Your task to perform on an android device: manage bookmarks in the chrome app Image 0: 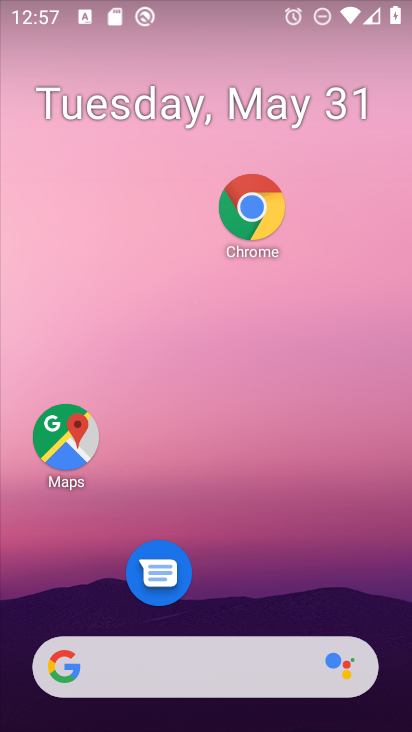
Step 0: drag from (152, 603) to (232, 151)
Your task to perform on an android device: manage bookmarks in the chrome app Image 1: 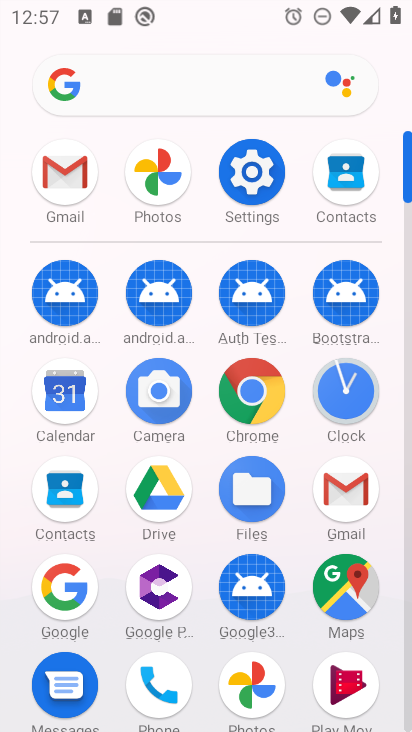
Step 1: click (255, 390)
Your task to perform on an android device: manage bookmarks in the chrome app Image 2: 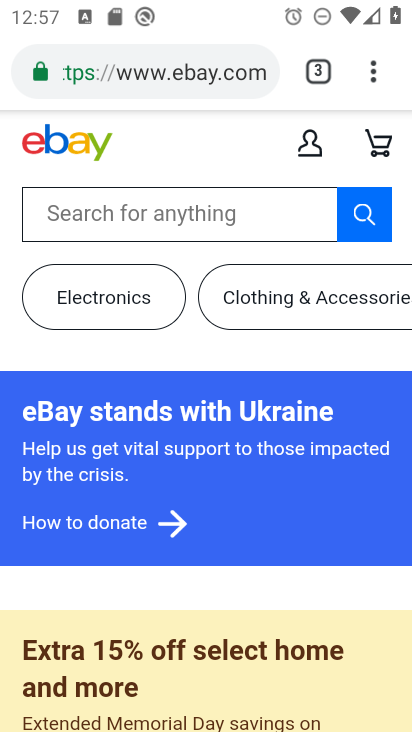
Step 2: click (376, 83)
Your task to perform on an android device: manage bookmarks in the chrome app Image 3: 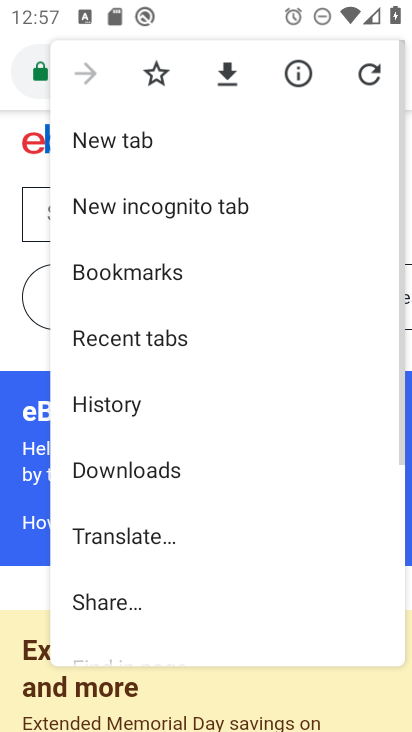
Step 3: drag from (202, 510) to (281, 163)
Your task to perform on an android device: manage bookmarks in the chrome app Image 4: 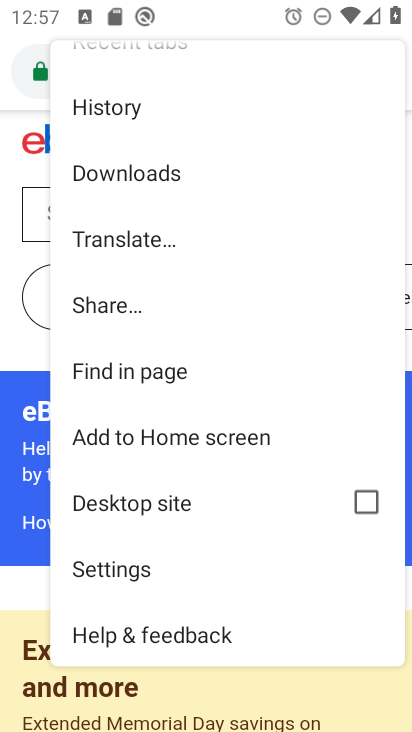
Step 4: drag from (170, 323) to (178, 705)
Your task to perform on an android device: manage bookmarks in the chrome app Image 5: 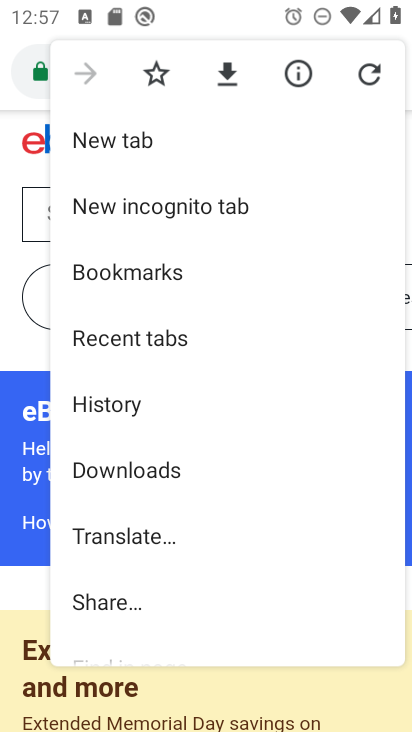
Step 5: click (122, 276)
Your task to perform on an android device: manage bookmarks in the chrome app Image 6: 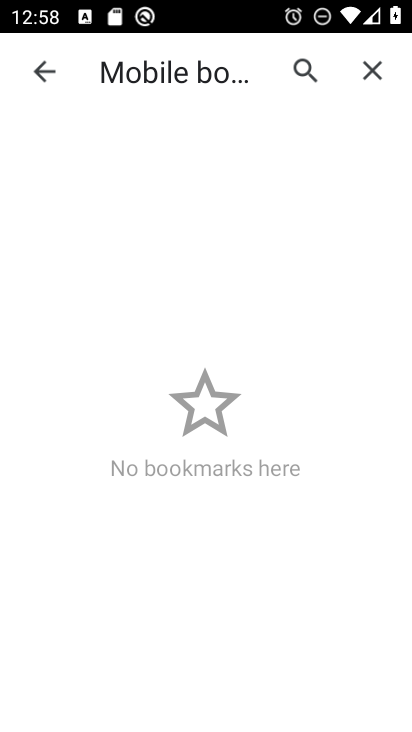
Step 6: task complete